Your task to perform on an android device: What is the news today? Image 0: 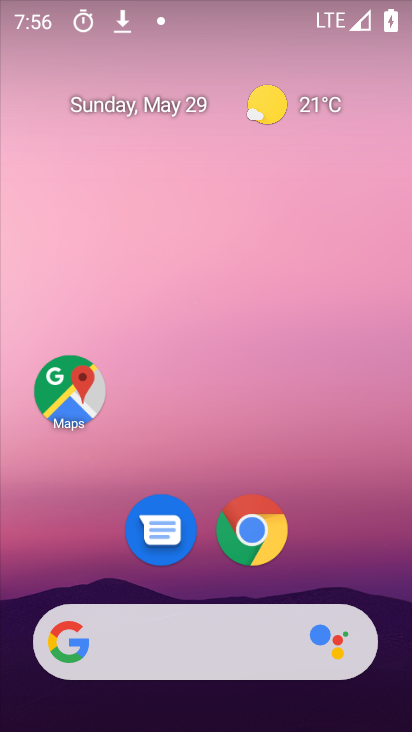
Step 0: drag from (279, 680) to (298, 181)
Your task to perform on an android device: What is the news today? Image 1: 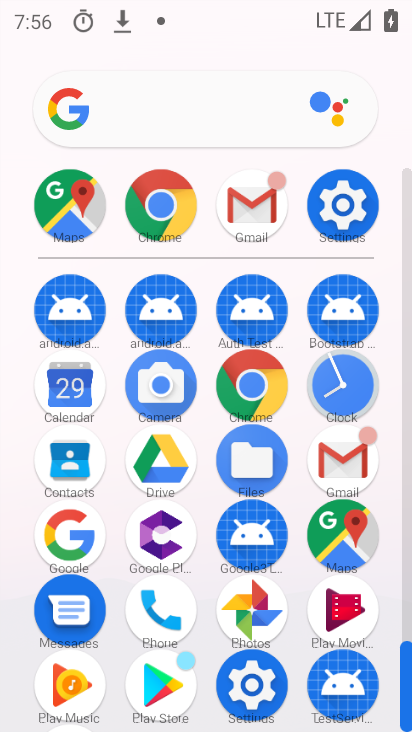
Step 1: click (156, 103)
Your task to perform on an android device: What is the news today? Image 2: 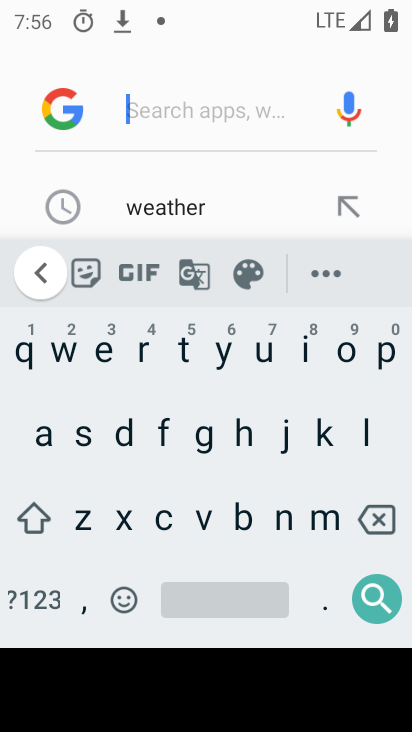
Step 2: press back button
Your task to perform on an android device: What is the news today? Image 3: 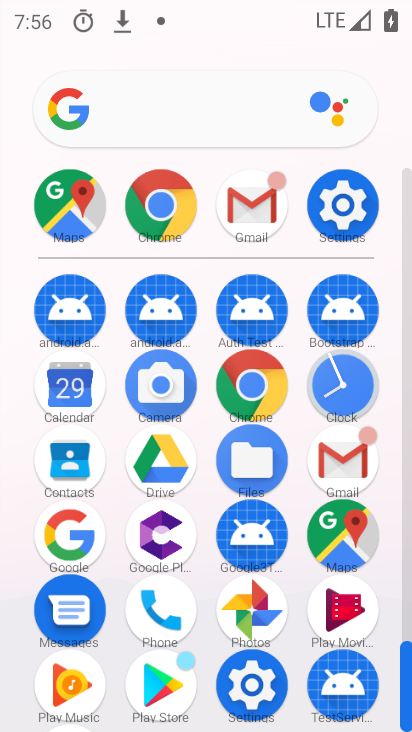
Step 3: click (156, 123)
Your task to perform on an android device: What is the news today? Image 4: 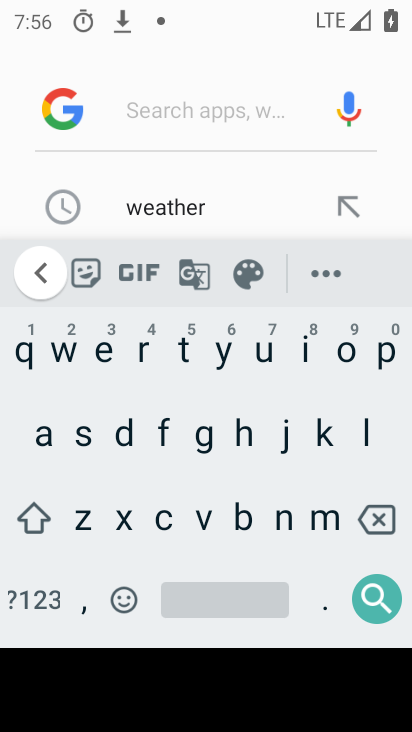
Step 4: click (287, 534)
Your task to perform on an android device: What is the news today? Image 5: 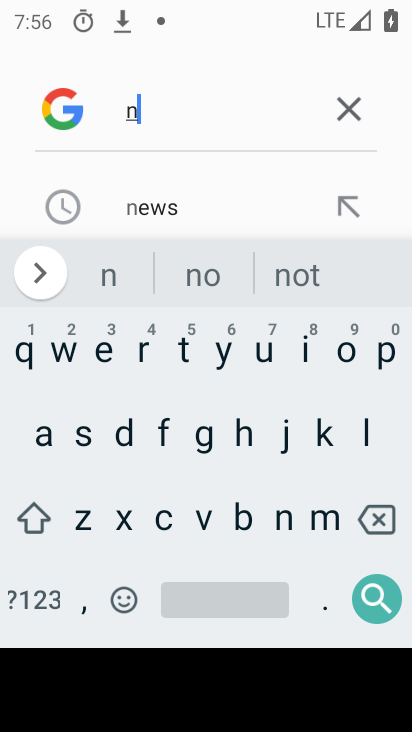
Step 5: click (193, 202)
Your task to perform on an android device: What is the news today? Image 6: 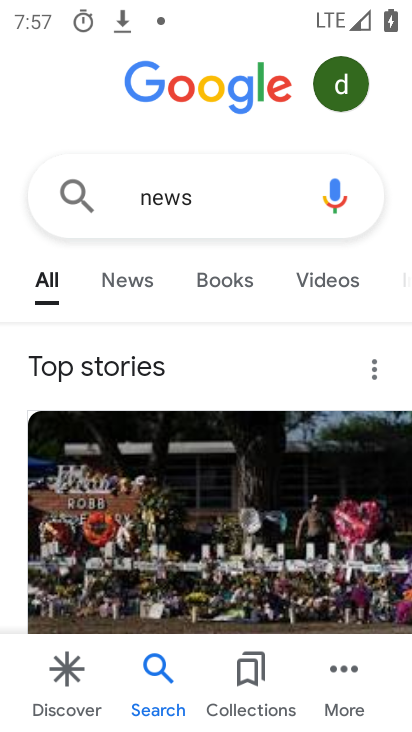
Step 6: task complete